Your task to perform on an android device: Add usb-c to the cart on target.com, then select checkout. Image 0: 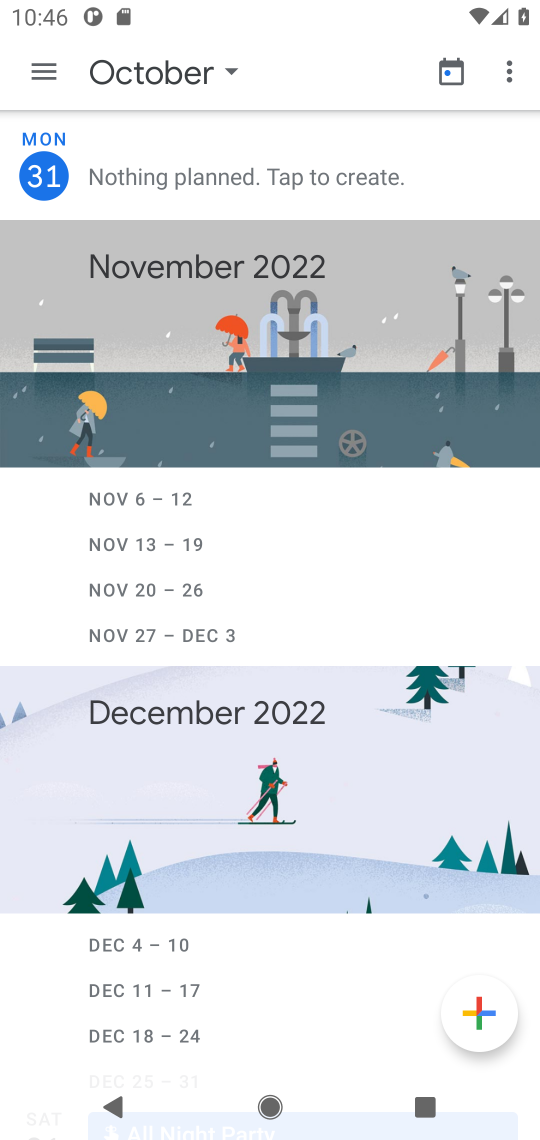
Step 0: press home button
Your task to perform on an android device: Add usb-c to the cart on target.com, then select checkout. Image 1: 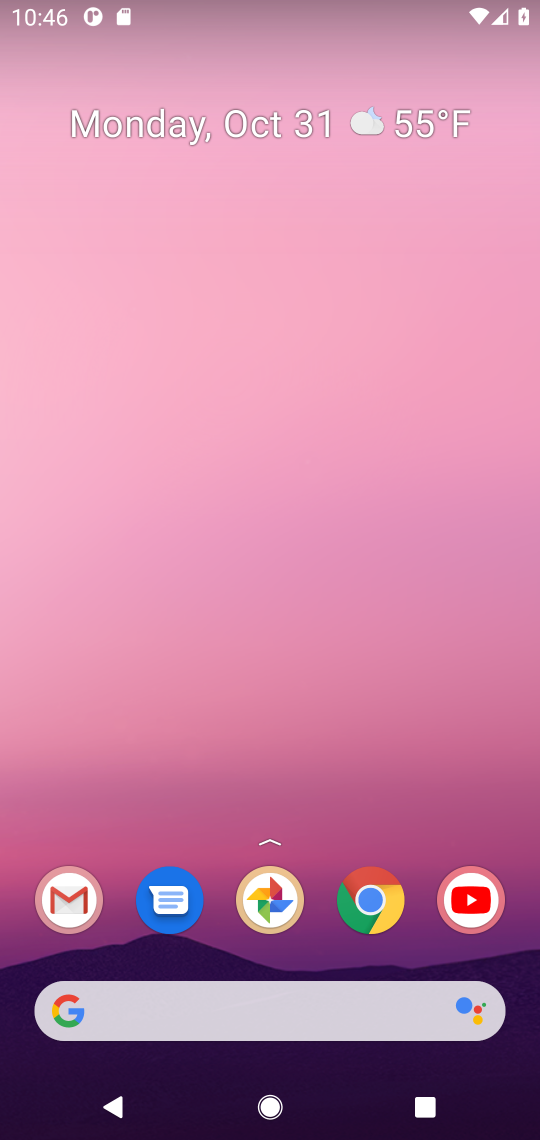
Step 1: click (372, 914)
Your task to perform on an android device: Add usb-c to the cart on target.com, then select checkout. Image 2: 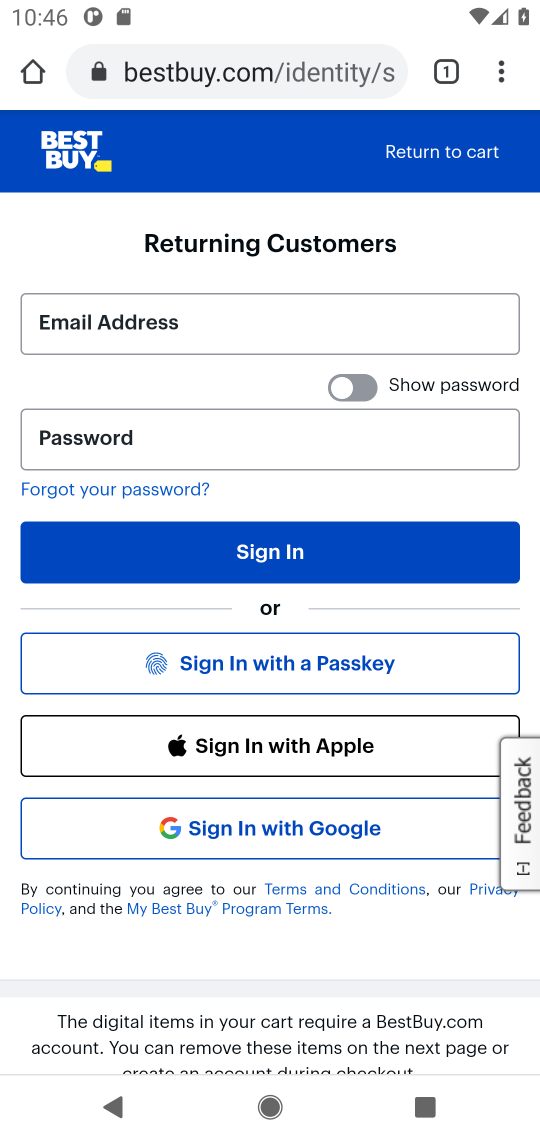
Step 2: click (225, 83)
Your task to perform on an android device: Add usb-c to the cart on target.com, then select checkout. Image 3: 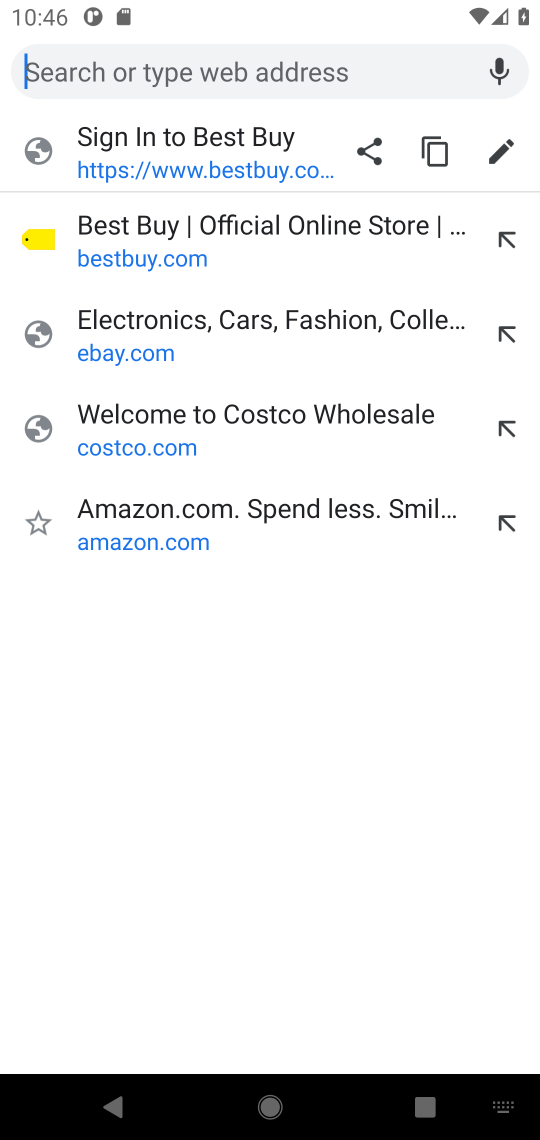
Step 3: type "target.com"
Your task to perform on an android device: Add usb-c to the cart on target.com, then select checkout. Image 4: 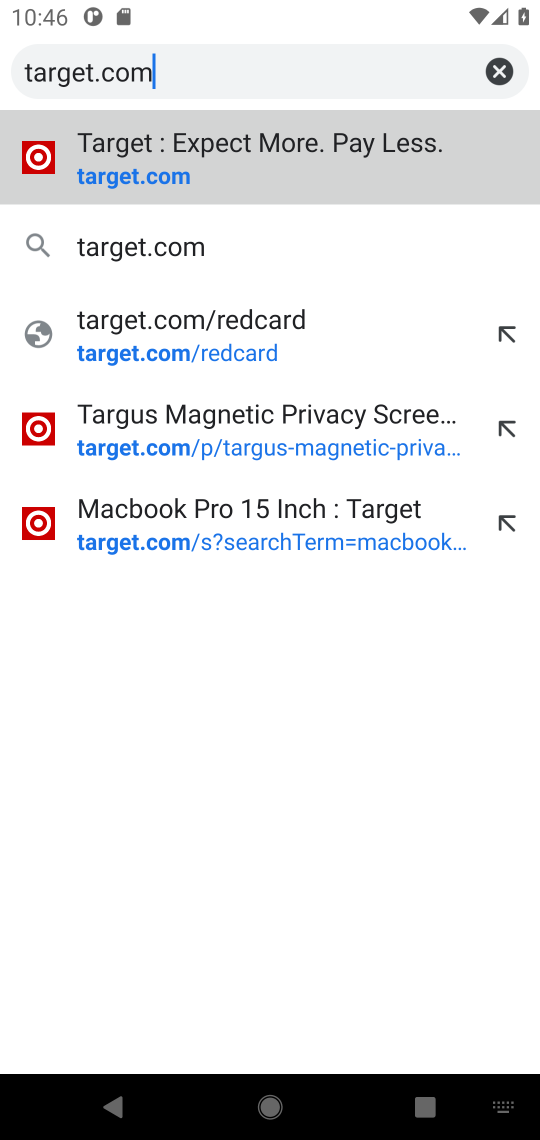
Step 4: click (135, 186)
Your task to perform on an android device: Add usb-c to the cart on target.com, then select checkout. Image 5: 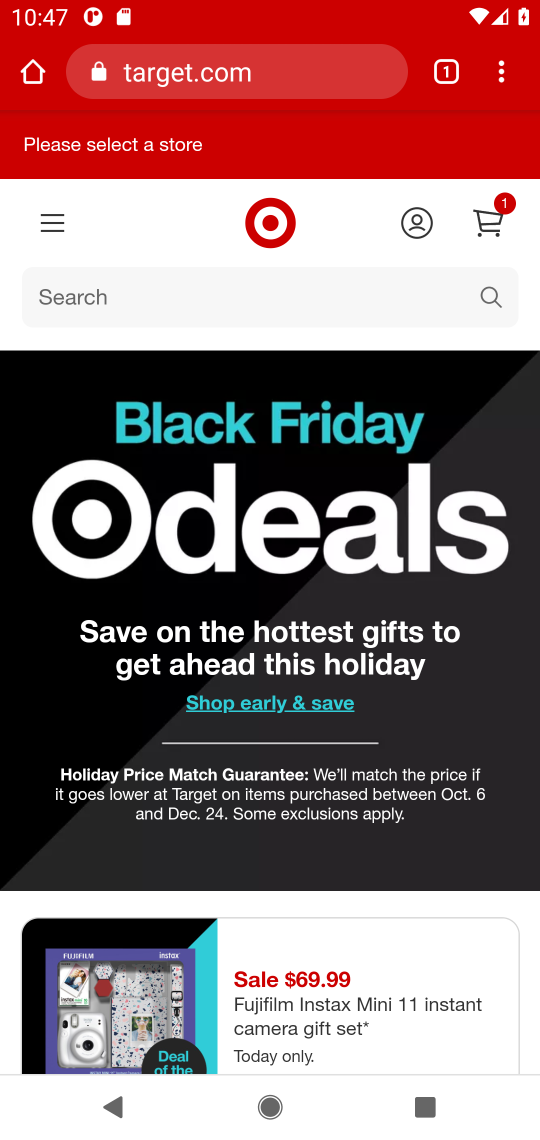
Step 5: click (482, 293)
Your task to perform on an android device: Add usb-c to the cart on target.com, then select checkout. Image 6: 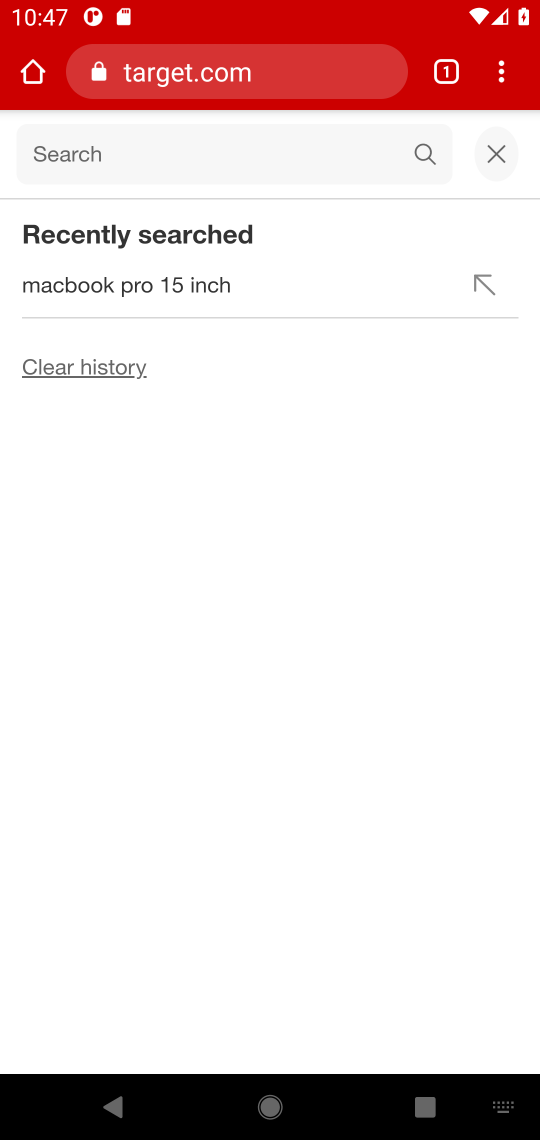
Step 6: click (82, 144)
Your task to perform on an android device: Add usb-c to the cart on target.com, then select checkout. Image 7: 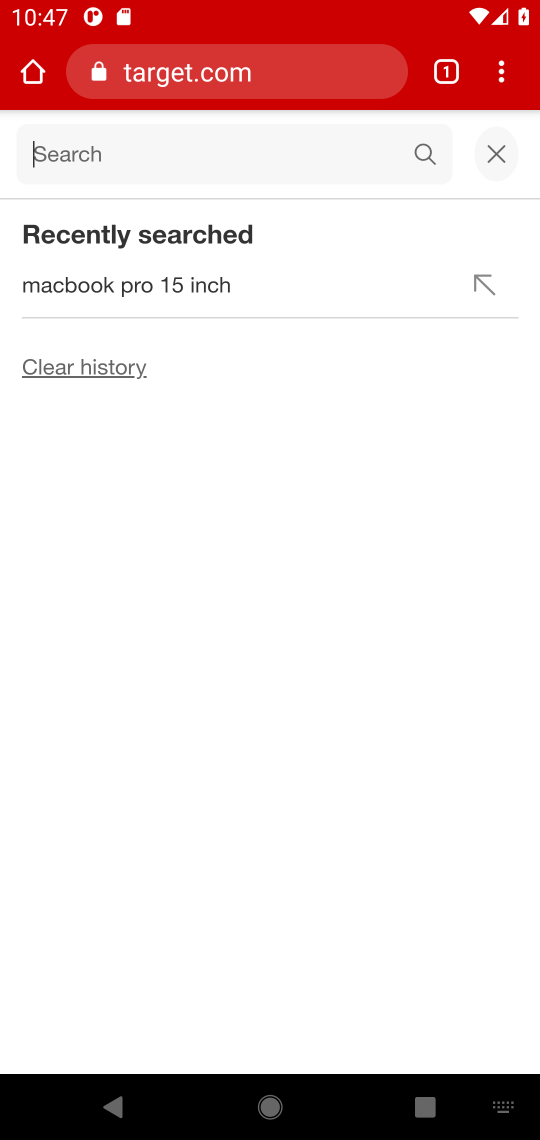
Step 7: type "usb-c"
Your task to perform on an android device: Add usb-c to the cart on target.com, then select checkout. Image 8: 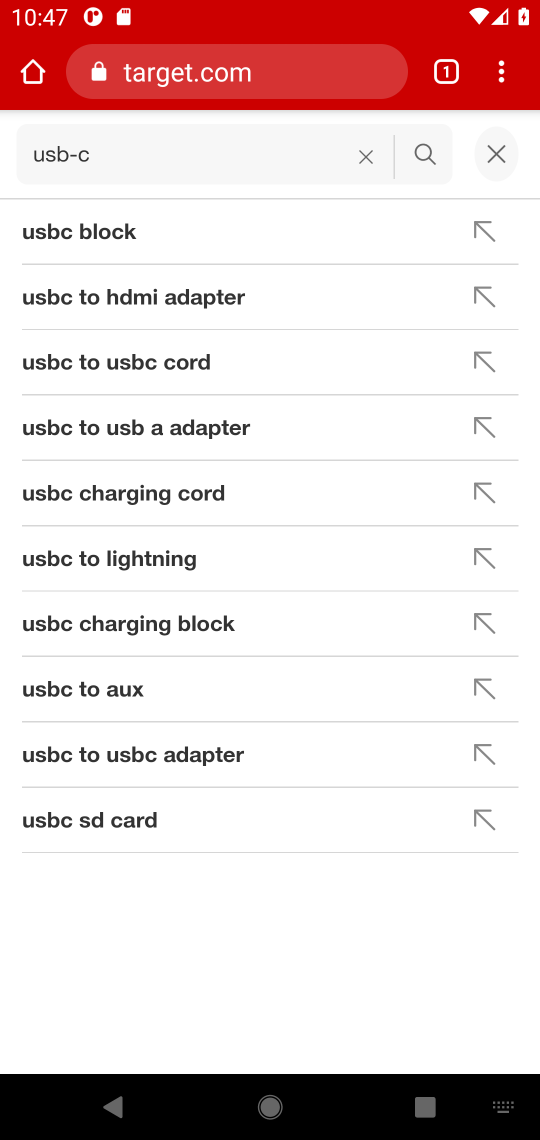
Step 8: click (414, 156)
Your task to perform on an android device: Add usb-c to the cart on target.com, then select checkout. Image 9: 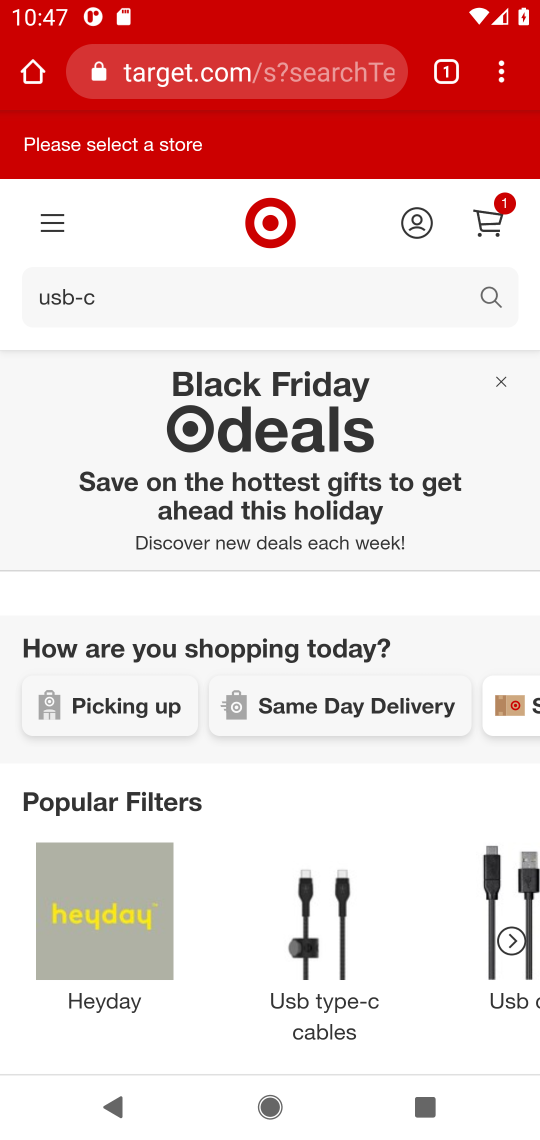
Step 9: drag from (221, 880) to (237, 500)
Your task to perform on an android device: Add usb-c to the cart on target.com, then select checkout. Image 10: 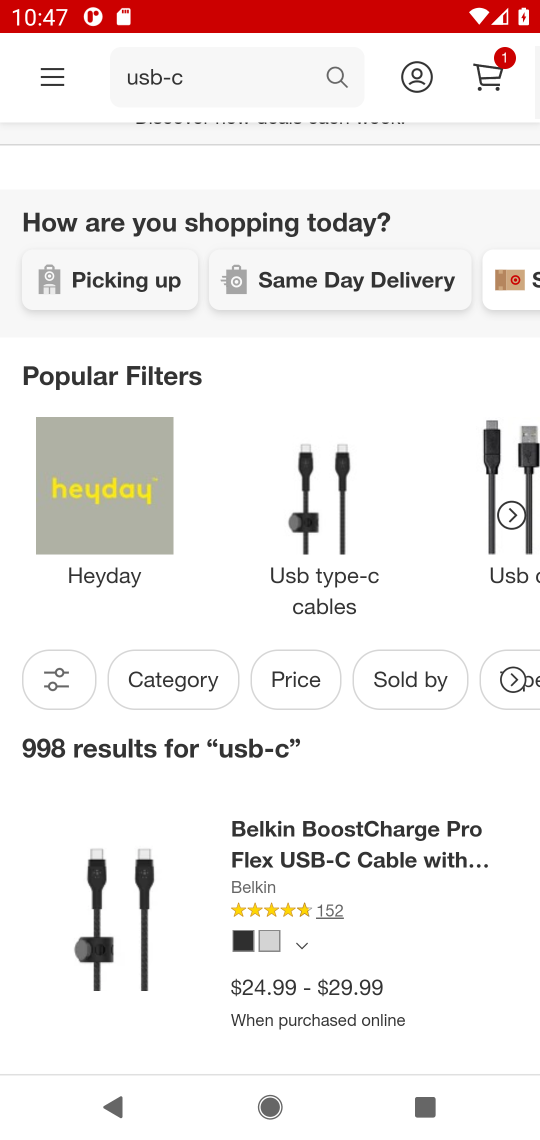
Step 10: drag from (178, 883) to (191, 583)
Your task to perform on an android device: Add usb-c to the cart on target.com, then select checkout. Image 11: 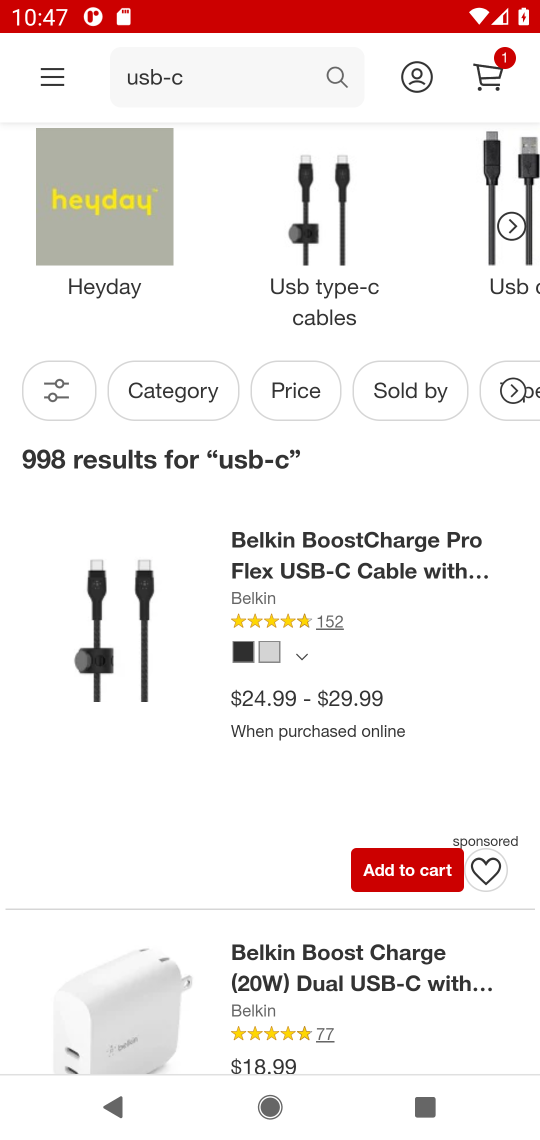
Step 11: click (154, 630)
Your task to perform on an android device: Add usb-c to the cart on target.com, then select checkout. Image 12: 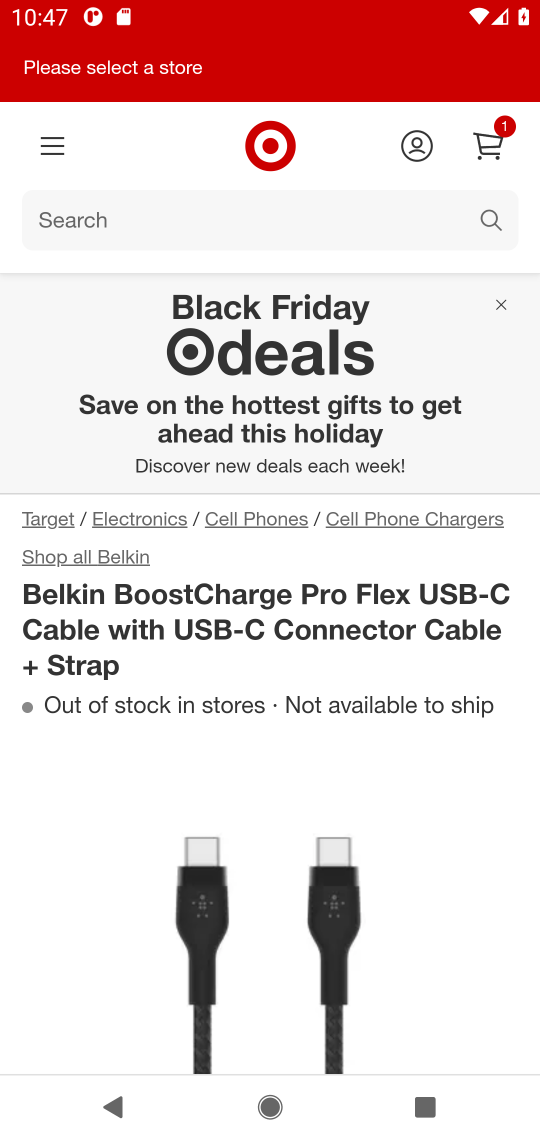
Step 12: drag from (179, 793) to (182, 349)
Your task to perform on an android device: Add usb-c to the cart on target.com, then select checkout. Image 13: 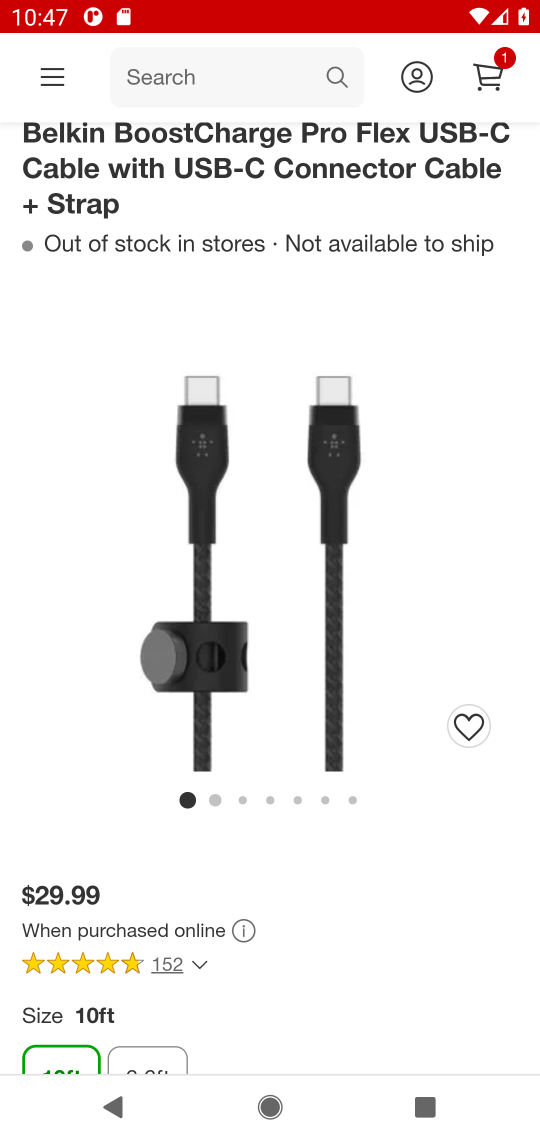
Step 13: drag from (164, 757) to (173, 343)
Your task to perform on an android device: Add usb-c to the cart on target.com, then select checkout. Image 14: 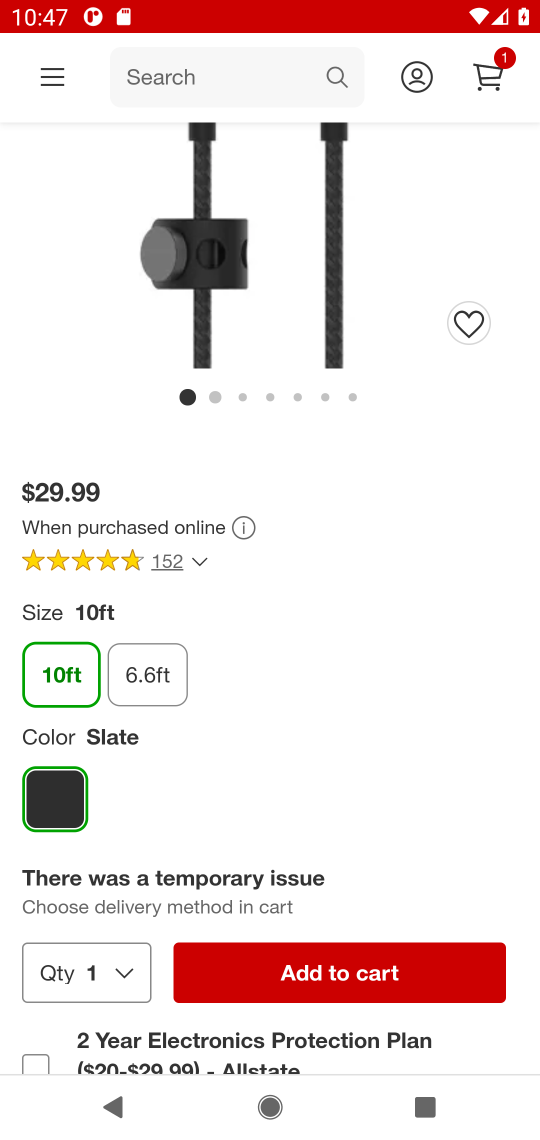
Step 14: drag from (189, 720) to (208, 488)
Your task to perform on an android device: Add usb-c to the cart on target.com, then select checkout. Image 15: 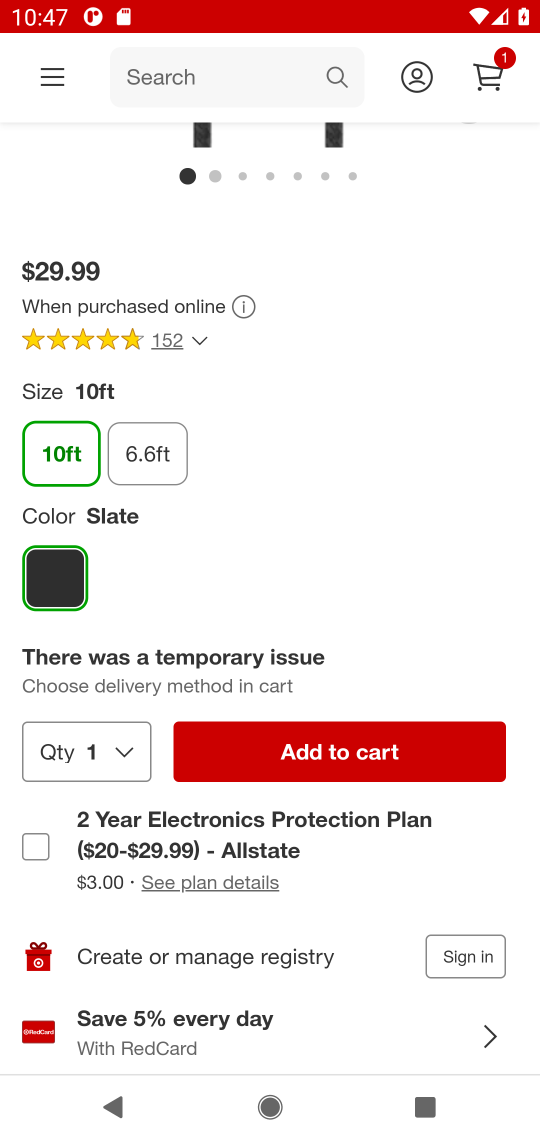
Step 15: click (301, 756)
Your task to perform on an android device: Add usb-c to the cart on target.com, then select checkout. Image 16: 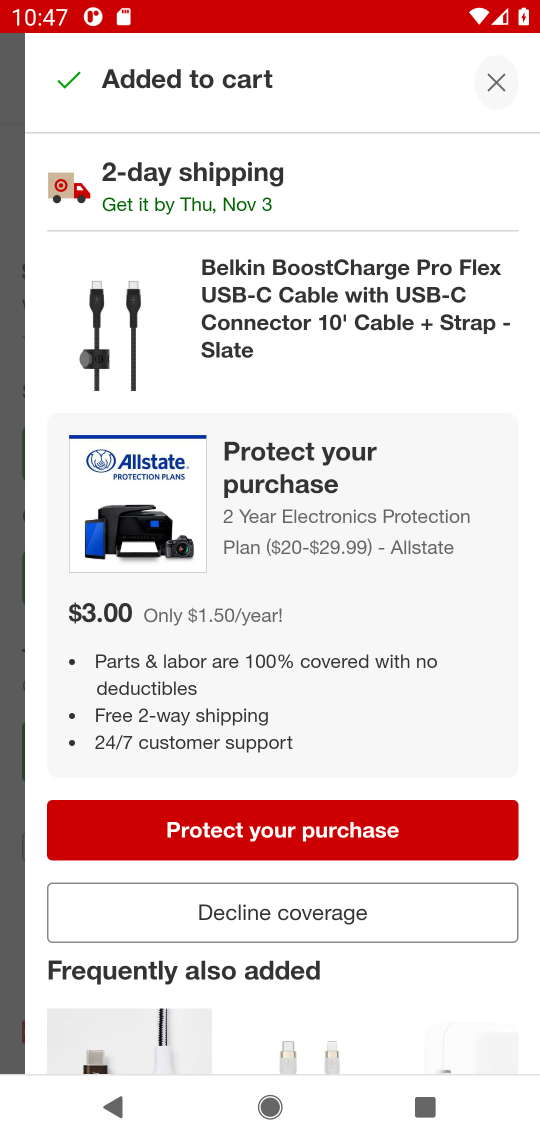
Step 16: drag from (301, 756) to (306, 435)
Your task to perform on an android device: Add usb-c to the cart on target.com, then select checkout. Image 17: 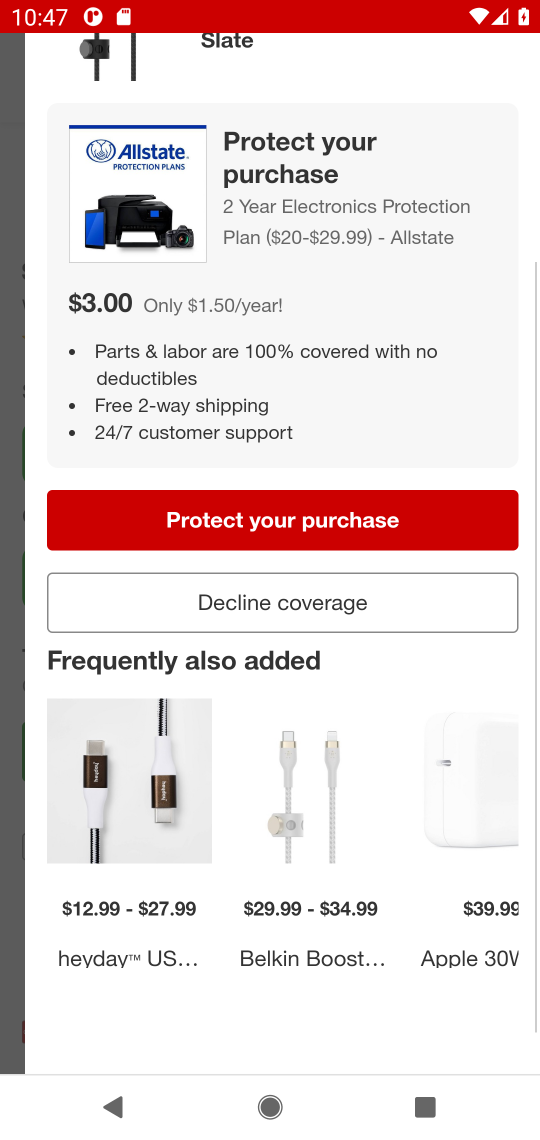
Step 17: drag from (306, 435) to (320, 796)
Your task to perform on an android device: Add usb-c to the cart on target.com, then select checkout. Image 18: 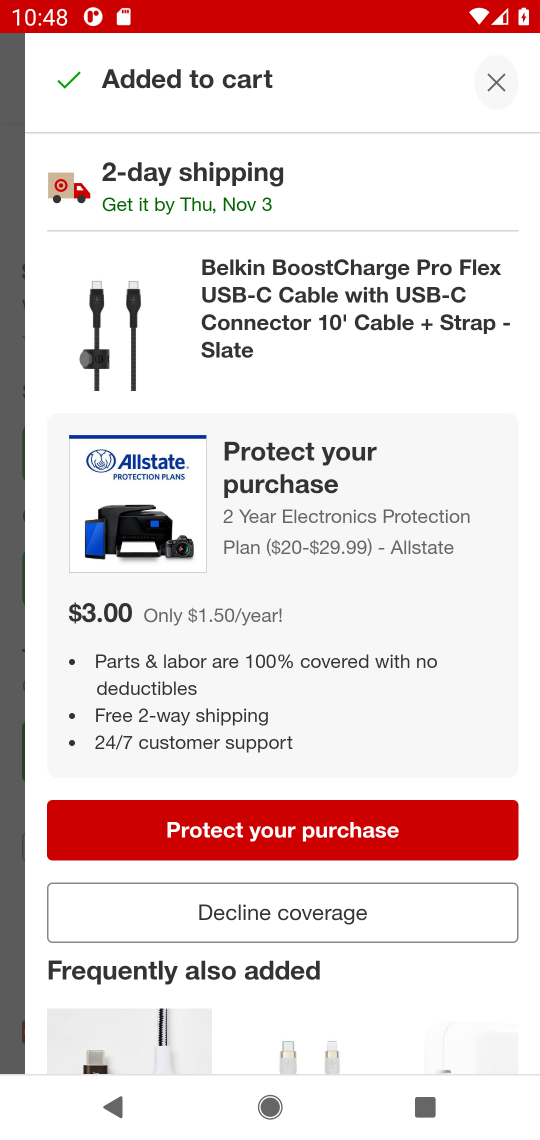
Step 18: drag from (256, 496) to (282, 767)
Your task to perform on an android device: Add usb-c to the cart on target.com, then select checkout. Image 19: 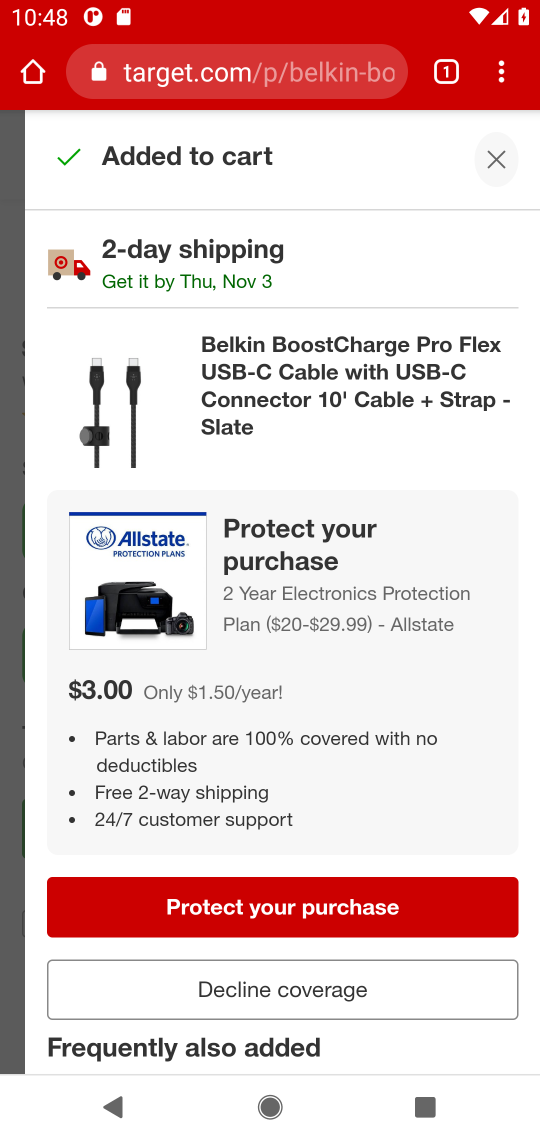
Step 19: drag from (302, 812) to (320, 521)
Your task to perform on an android device: Add usb-c to the cart on target.com, then select checkout. Image 20: 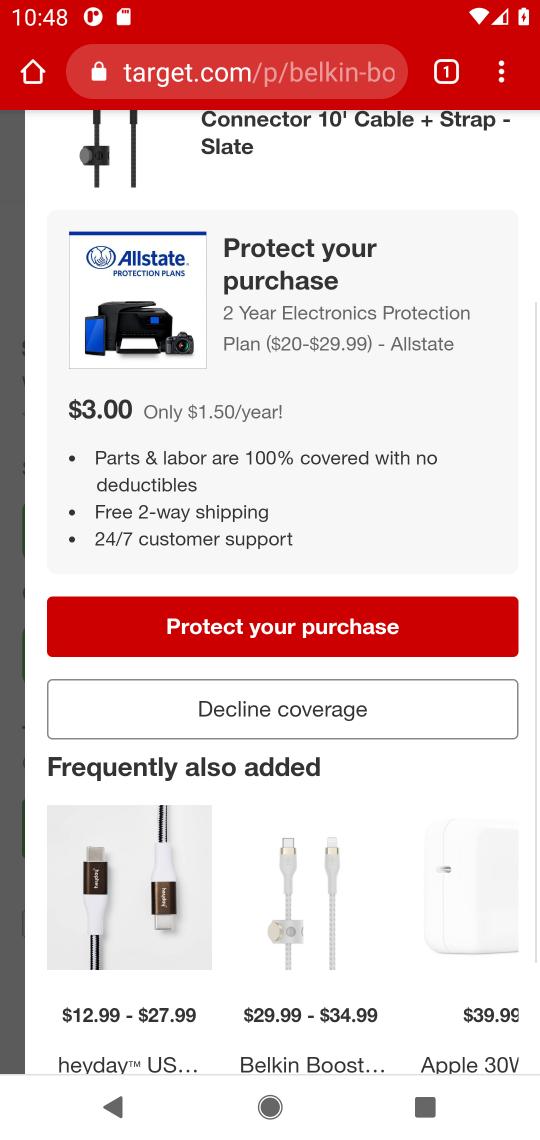
Step 20: drag from (262, 873) to (260, 348)
Your task to perform on an android device: Add usb-c to the cart on target.com, then select checkout. Image 21: 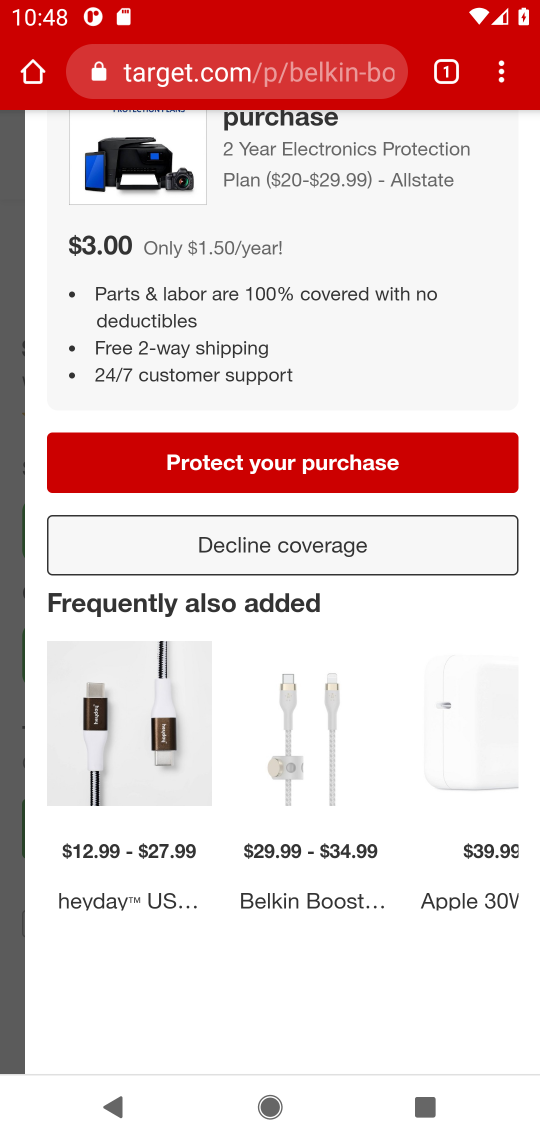
Step 21: drag from (224, 972) to (215, 484)
Your task to perform on an android device: Add usb-c to the cart on target.com, then select checkout. Image 22: 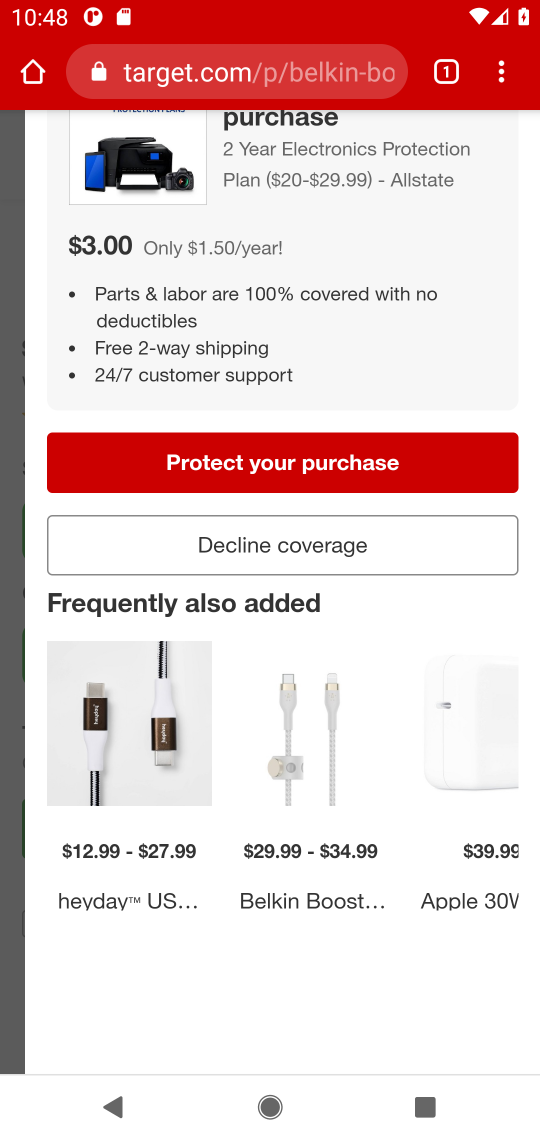
Step 22: drag from (256, 361) to (241, 891)
Your task to perform on an android device: Add usb-c to the cart on target.com, then select checkout. Image 23: 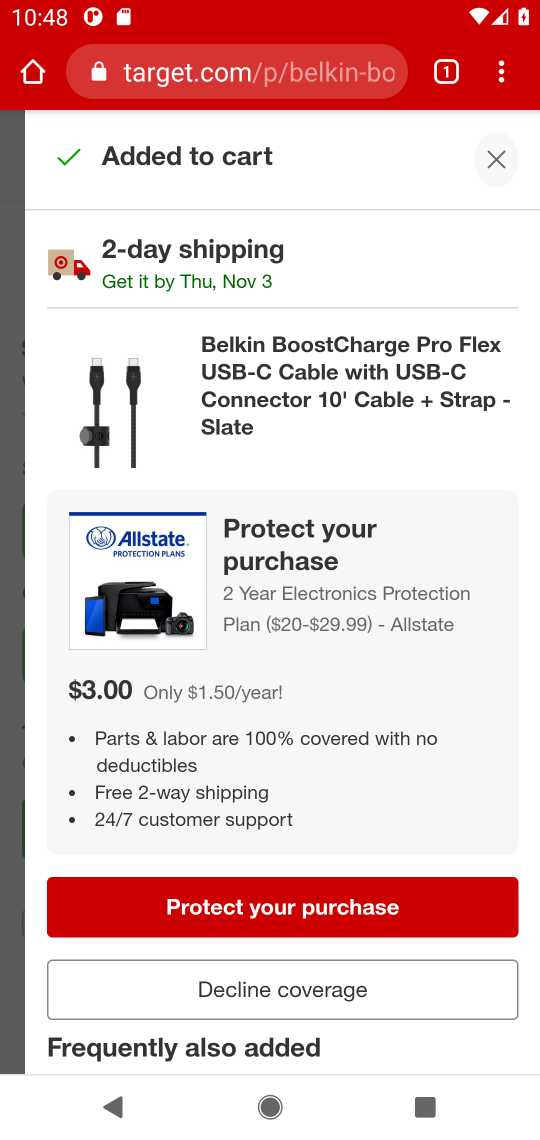
Step 23: drag from (229, 487) to (248, 853)
Your task to perform on an android device: Add usb-c to the cart on target.com, then select checkout. Image 24: 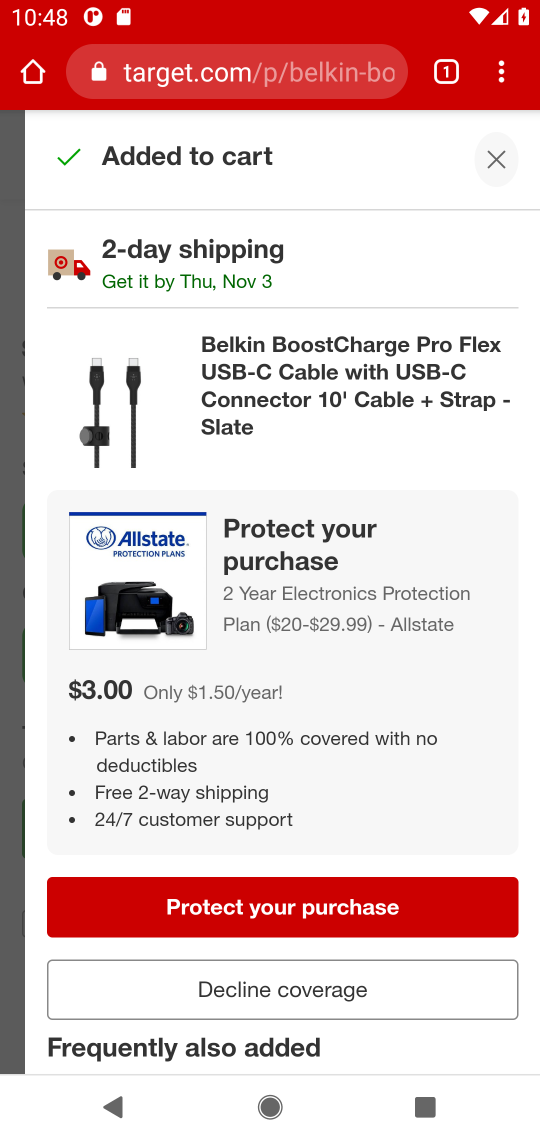
Step 24: click (494, 170)
Your task to perform on an android device: Add usb-c to the cart on target.com, then select checkout. Image 25: 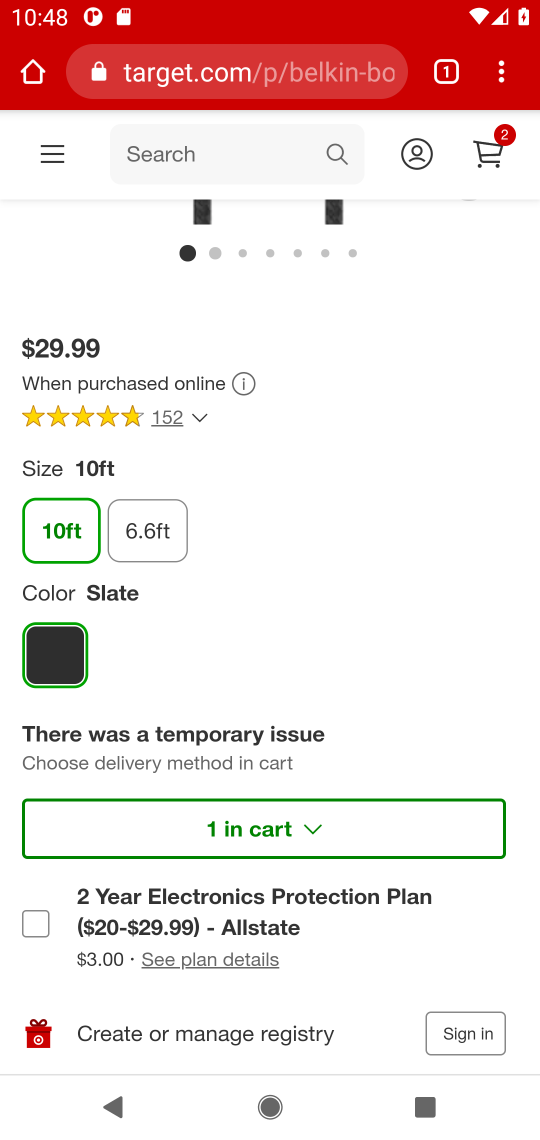
Step 25: click (493, 154)
Your task to perform on an android device: Add usb-c to the cart on target.com, then select checkout. Image 26: 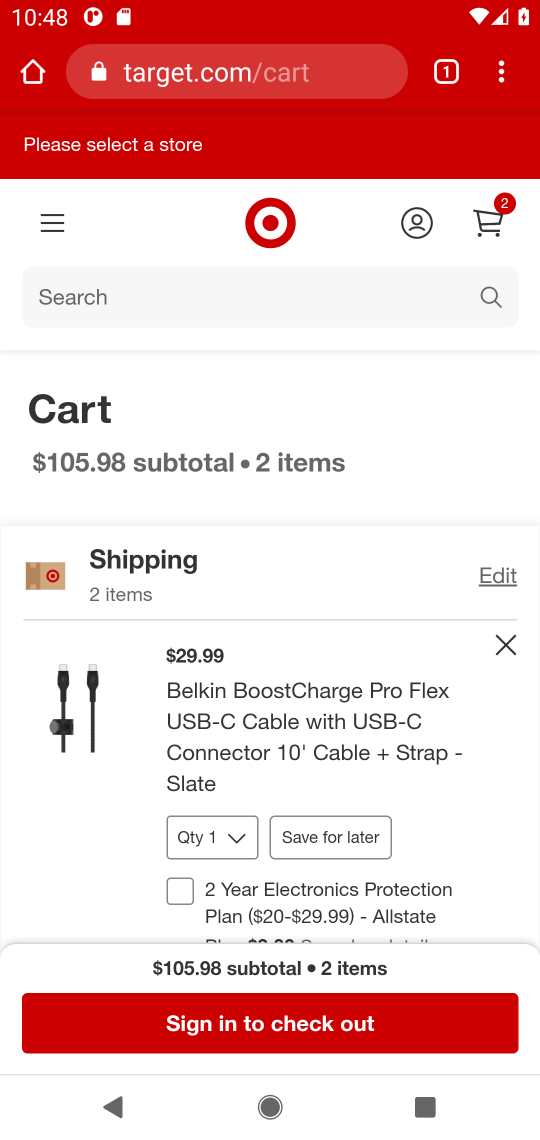
Step 26: drag from (320, 721) to (337, 441)
Your task to perform on an android device: Add usb-c to the cart on target.com, then select checkout. Image 27: 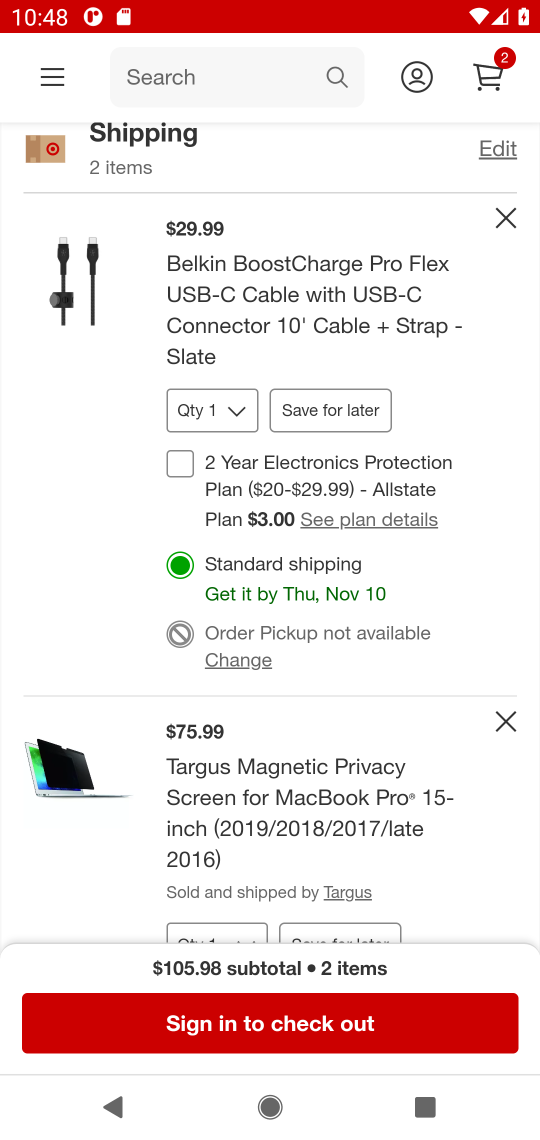
Step 27: drag from (292, 693) to (308, 601)
Your task to perform on an android device: Add usb-c to the cart on target.com, then select checkout. Image 28: 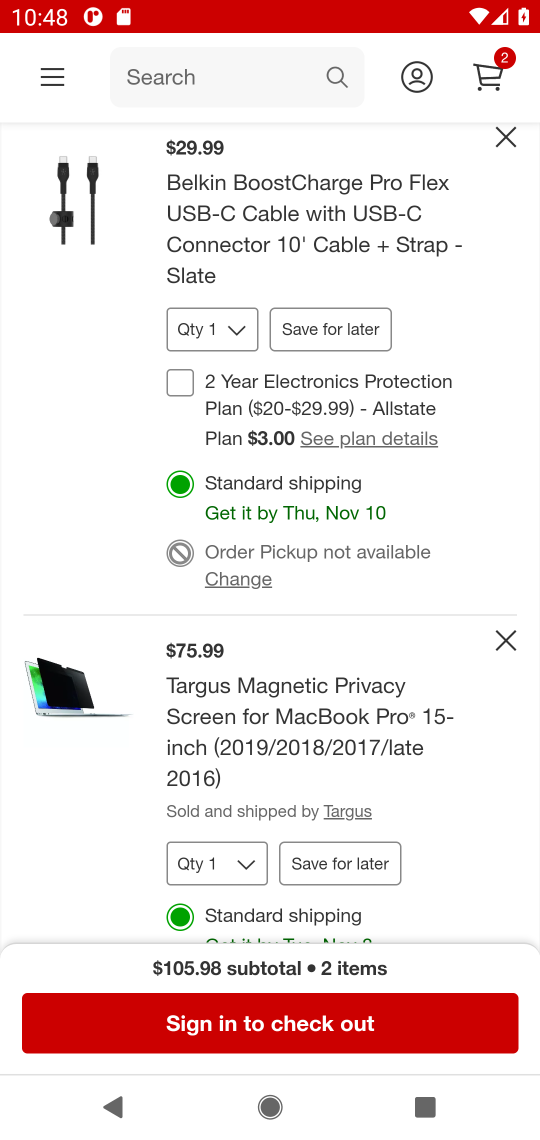
Step 28: click (237, 1032)
Your task to perform on an android device: Add usb-c to the cart on target.com, then select checkout. Image 29: 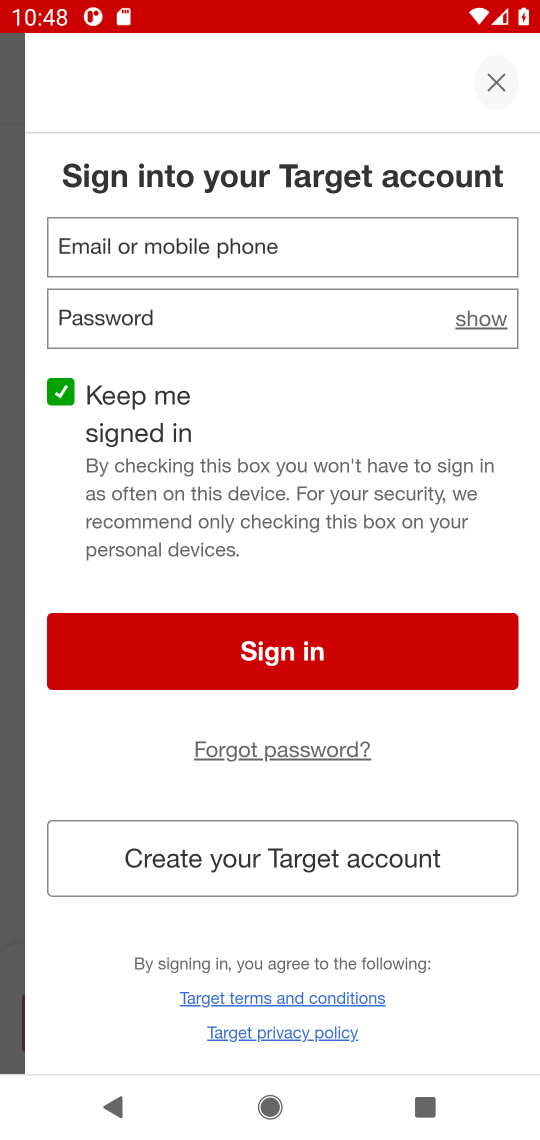
Step 29: task complete